Your task to perform on an android device: Open display settings Image 0: 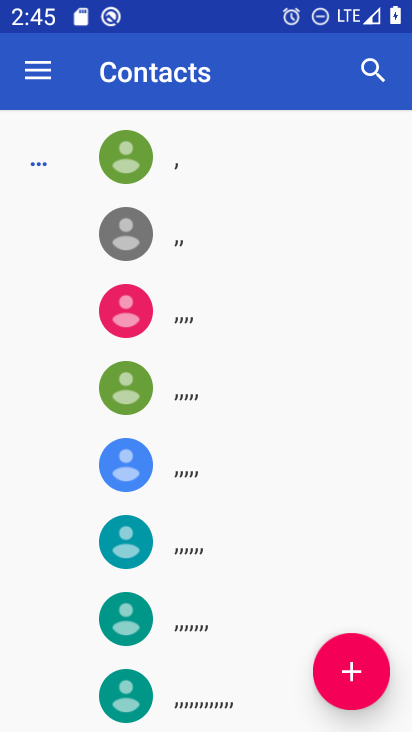
Step 0: press home button
Your task to perform on an android device: Open display settings Image 1: 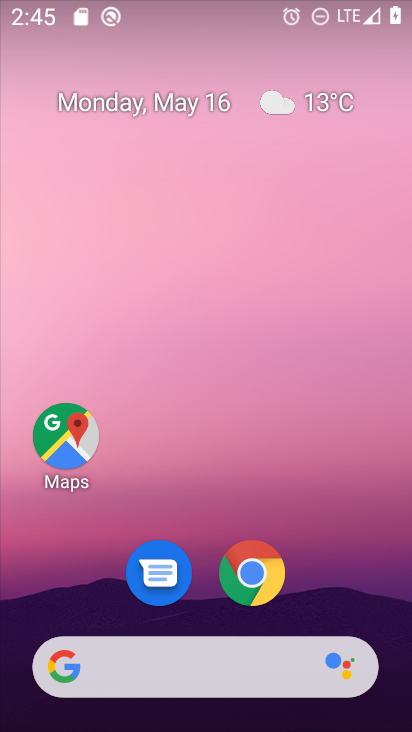
Step 1: drag from (200, 342) to (172, 157)
Your task to perform on an android device: Open display settings Image 2: 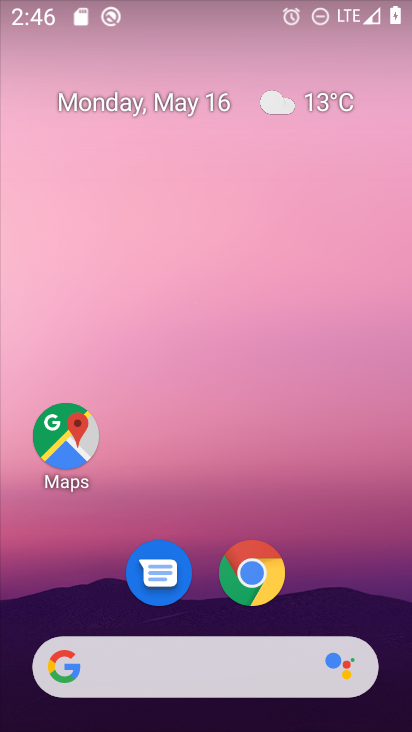
Step 2: drag from (187, 680) to (77, 10)
Your task to perform on an android device: Open display settings Image 3: 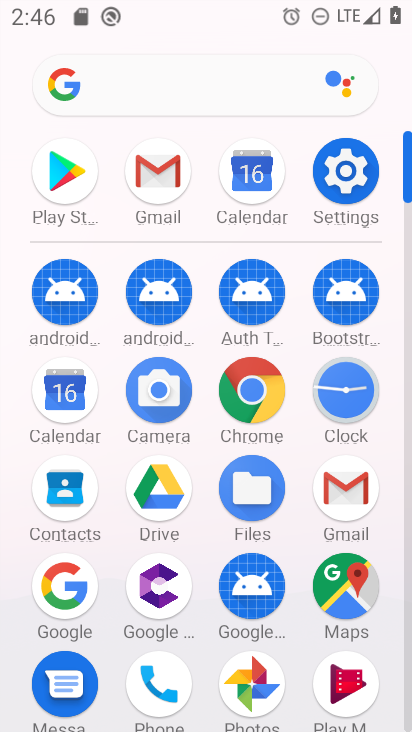
Step 3: click (345, 170)
Your task to perform on an android device: Open display settings Image 4: 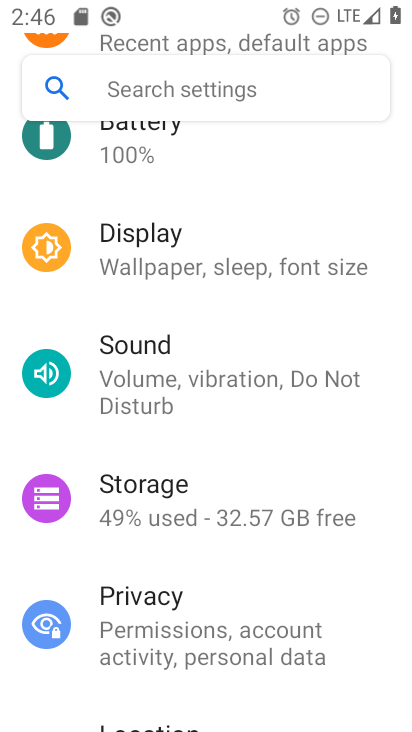
Step 4: click (175, 280)
Your task to perform on an android device: Open display settings Image 5: 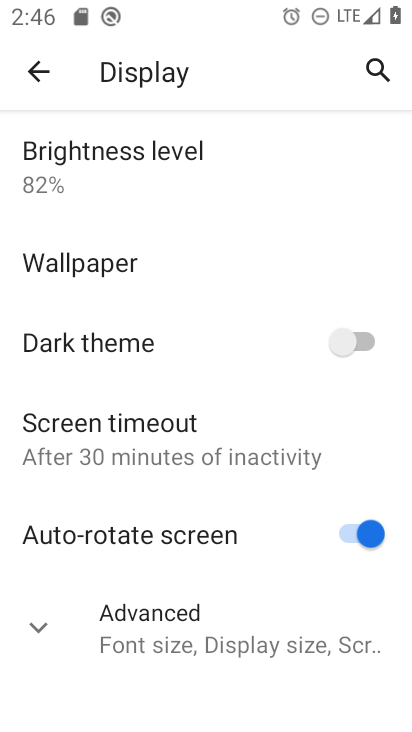
Step 5: task complete